Your task to perform on an android device: Go to Maps Image 0: 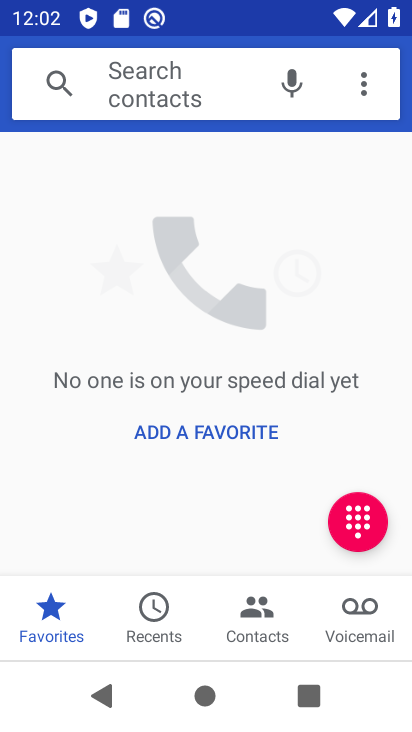
Step 0: press home button
Your task to perform on an android device: Go to Maps Image 1: 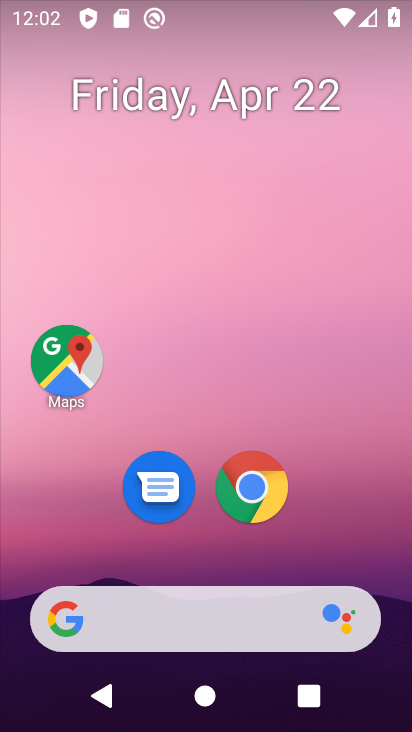
Step 1: click (70, 380)
Your task to perform on an android device: Go to Maps Image 2: 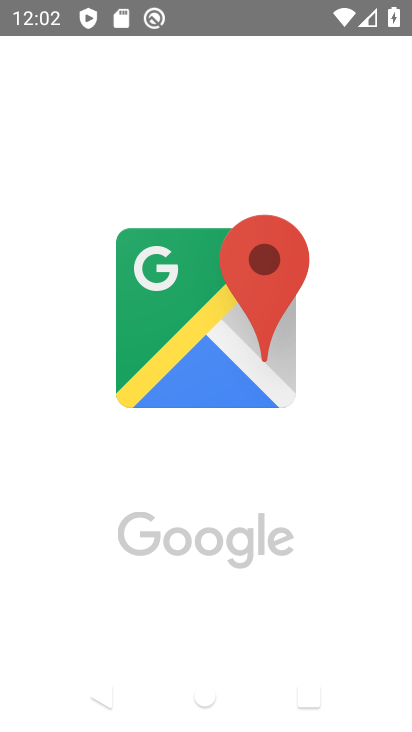
Step 2: task complete